Your task to perform on an android device: turn off data saver in the chrome app Image 0: 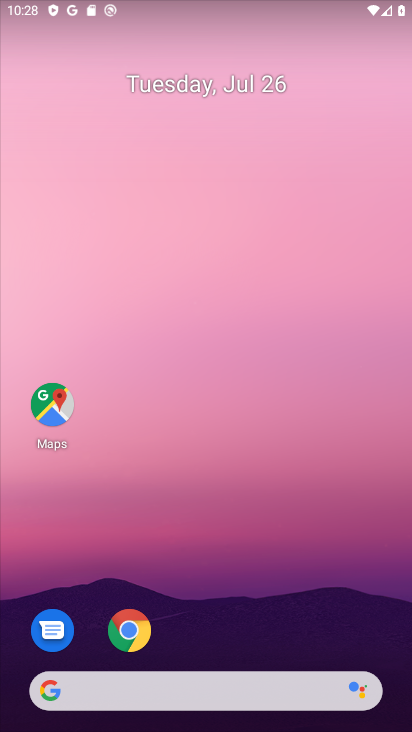
Step 0: click (127, 624)
Your task to perform on an android device: turn off data saver in the chrome app Image 1: 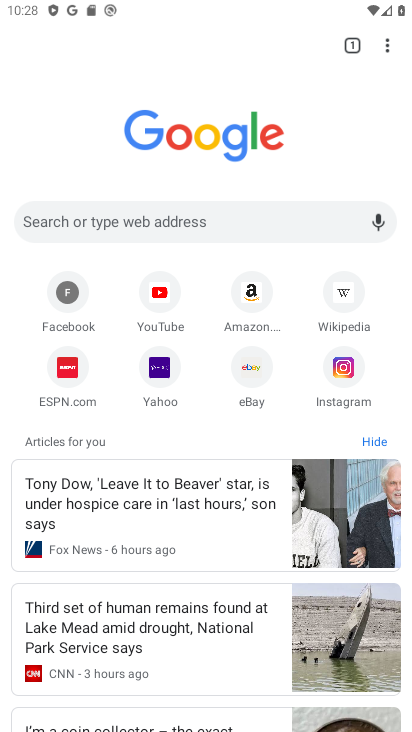
Step 1: click (388, 47)
Your task to perform on an android device: turn off data saver in the chrome app Image 2: 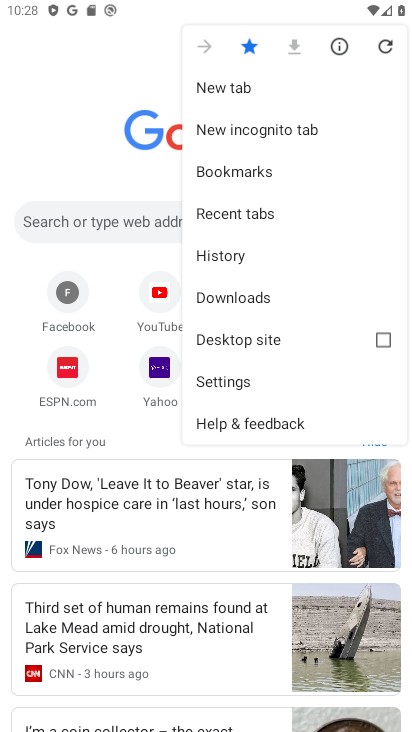
Step 2: click (246, 379)
Your task to perform on an android device: turn off data saver in the chrome app Image 3: 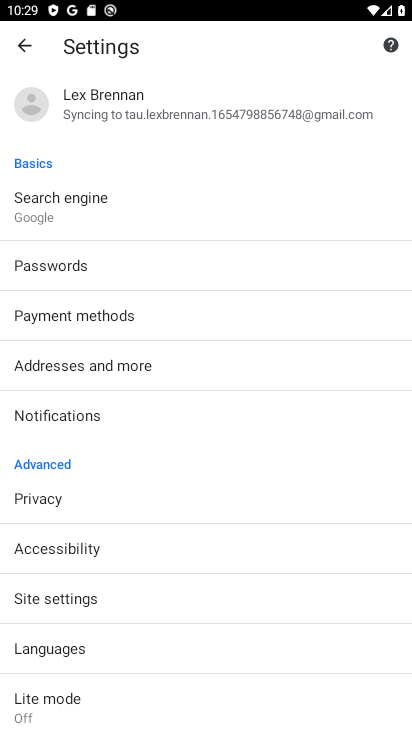
Step 3: task complete